Your task to perform on an android device: toggle javascript in the chrome app Image 0: 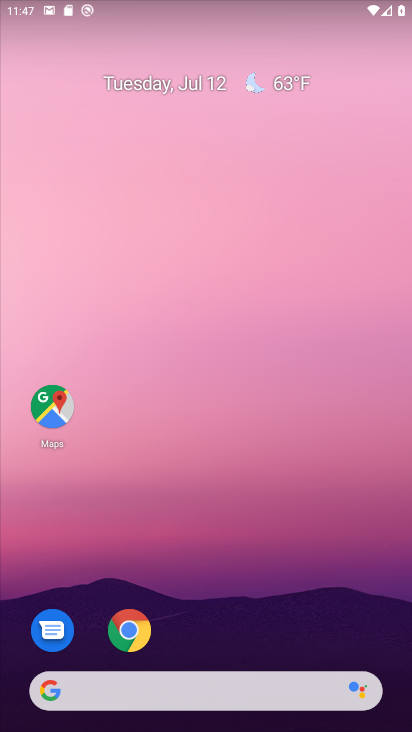
Step 0: drag from (199, 690) to (212, 59)
Your task to perform on an android device: toggle javascript in the chrome app Image 1: 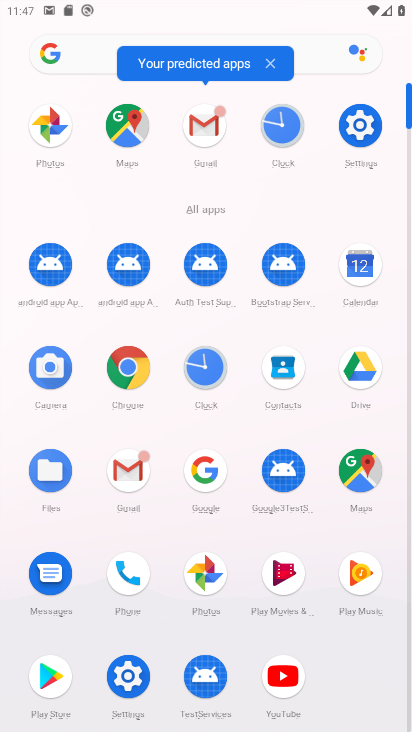
Step 1: click (132, 359)
Your task to perform on an android device: toggle javascript in the chrome app Image 2: 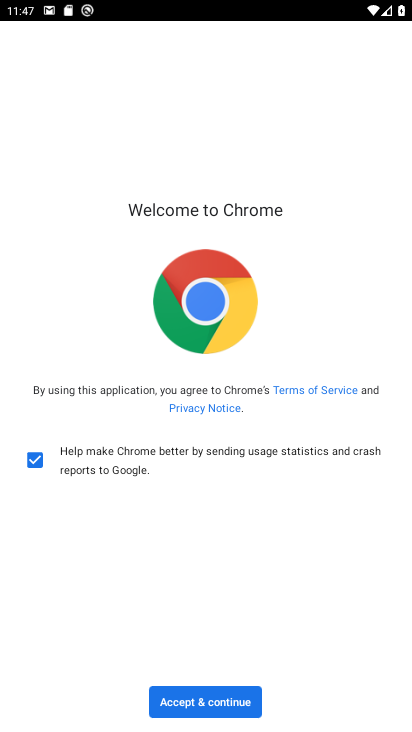
Step 2: click (234, 704)
Your task to perform on an android device: toggle javascript in the chrome app Image 3: 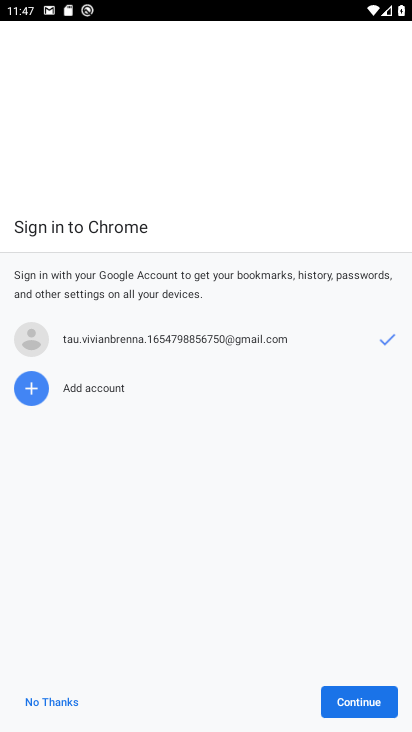
Step 3: click (369, 703)
Your task to perform on an android device: toggle javascript in the chrome app Image 4: 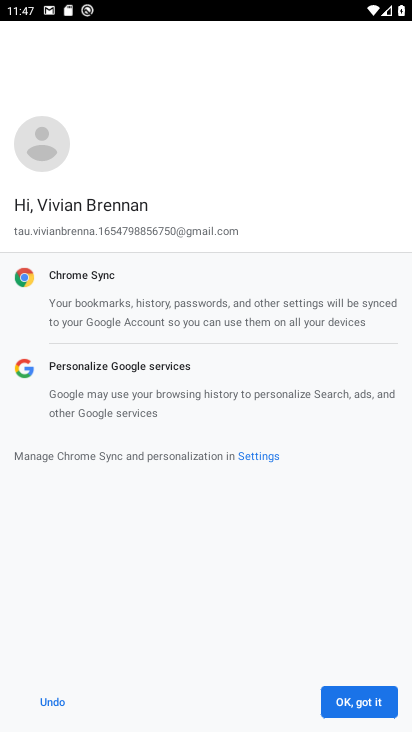
Step 4: click (374, 721)
Your task to perform on an android device: toggle javascript in the chrome app Image 5: 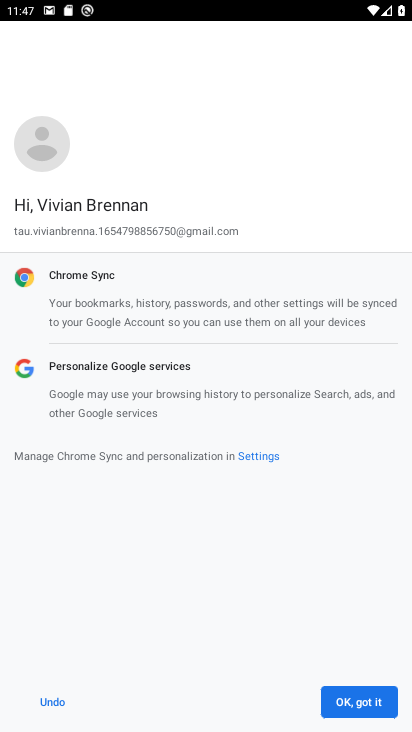
Step 5: click (361, 702)
Your task to perform on an android device: toggle javascript in the chrome app Image 6: 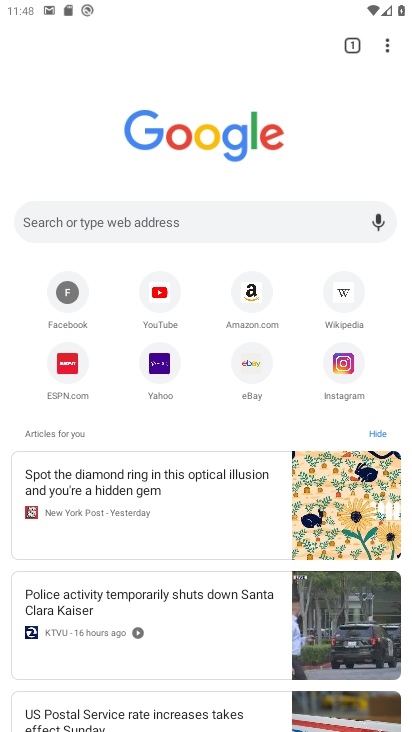
Step 6: drag from (384, 42) to (253, 383)
Your task to perform on an android device: toggle javascript in the chrome app Image 7: 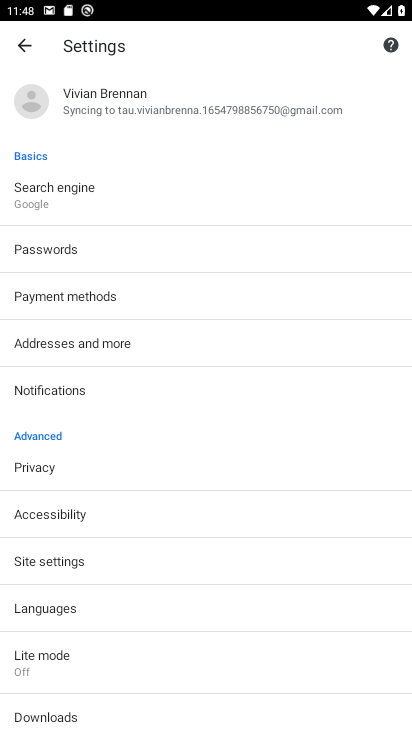
Step 7: click (88, 565)
Your task to perform on an android device: toggle javascript in the chrome app Image 8: 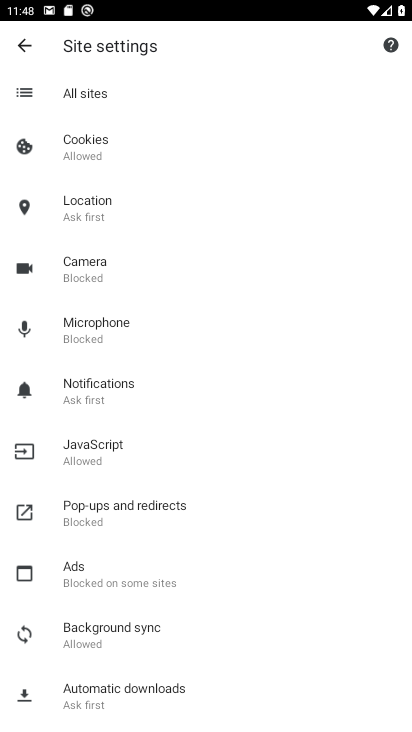
Step 8: click (135, 453)
Your task to perform on an android device: toggle javascript in the chrome app Image 9: 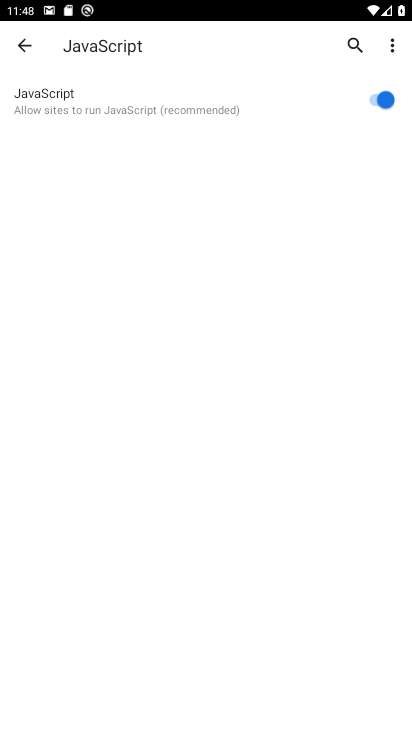
Step 9: click (396, 91)
Your task to perform on an android device: toggle javascript in the chrome app Image 10: 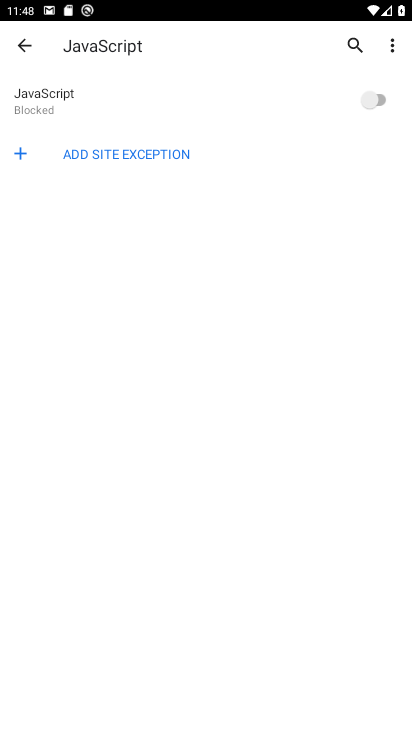
Step 10: task complete